Your task to perform on an android device: Open location settings Image 0: 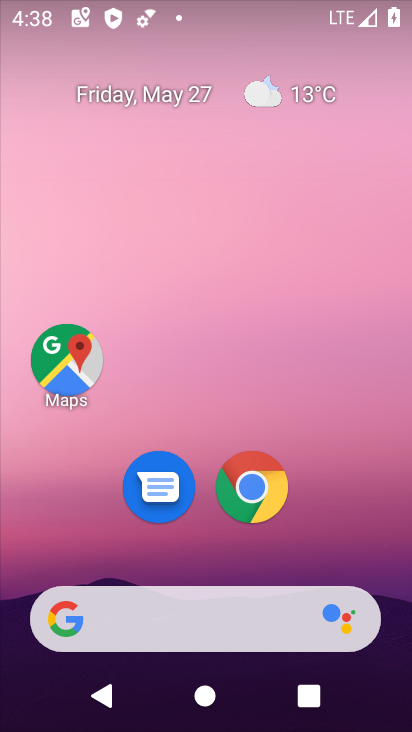
Step 0: drag from (342, 487) to (268, 13)
Your task to perform on an android device: Open location settings Image 1: 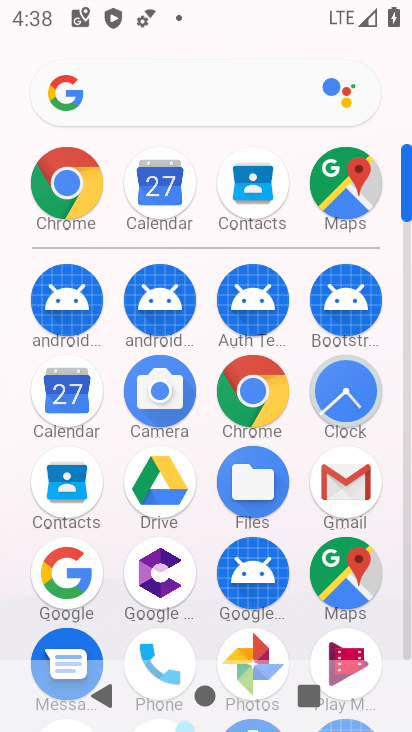
Step 1: drag from (299, 598) to (322, 135)
Your task to perform on an android device: Open location settings Image 2: 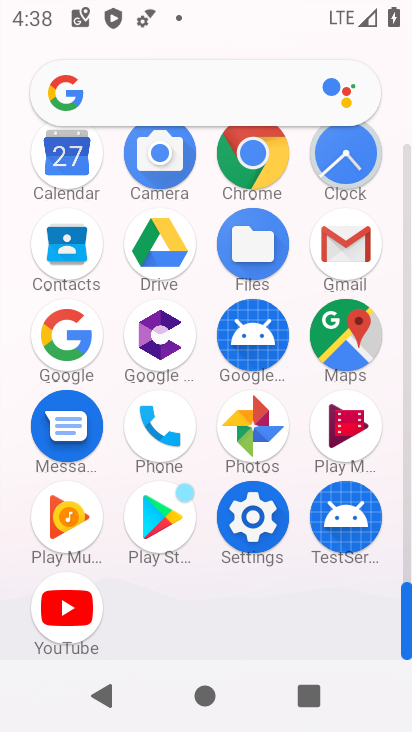
Step 2: click (247, 538)
Your task to perform on an android device: Open location settings Image 3: 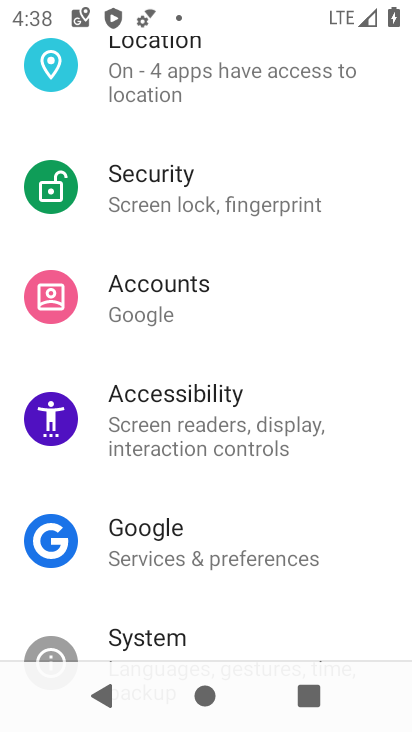
Step 3: drag from (203, 604) to (207, 187)
Your task to perform on an android device: Open location settings Image 4: 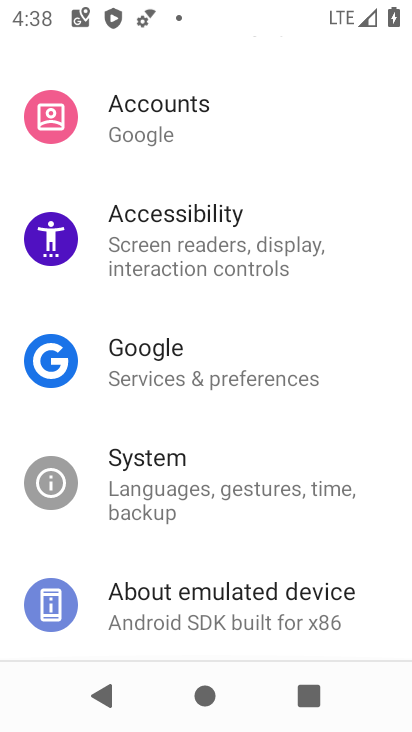
Step 4: drag from (217, 156) to (279, 573)
Your task to perform on an android device: Open location settings Image 5: 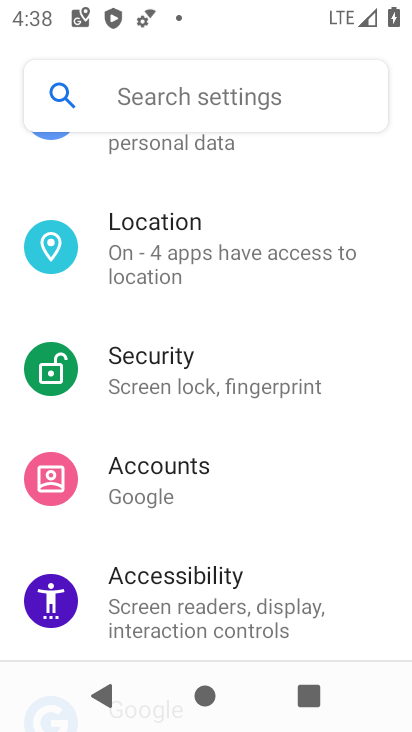
Step 5: click (228, 278)
Your task to perform on an android device: Open location settings Image 6: 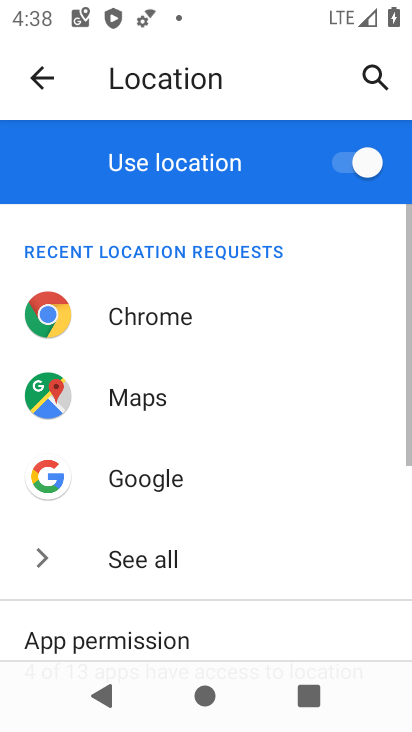
Step 6: task complete